Your task to perform on an android device: Open the stopwatch Image 0: 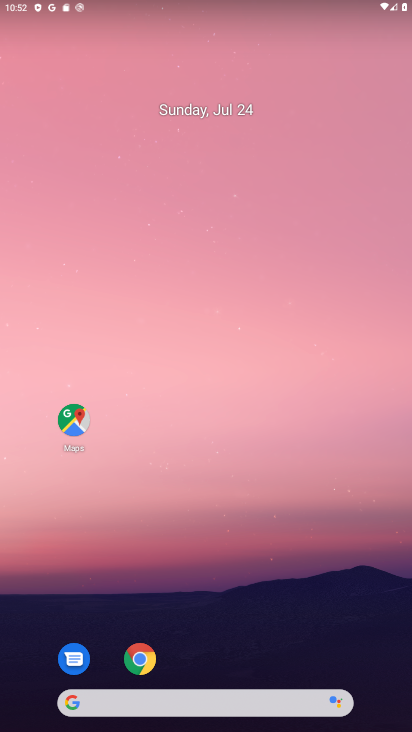
Step 0: drag from (236, 686) to (350, 51)
Your task to perform on an android device: Open the stopwatch Image 1: 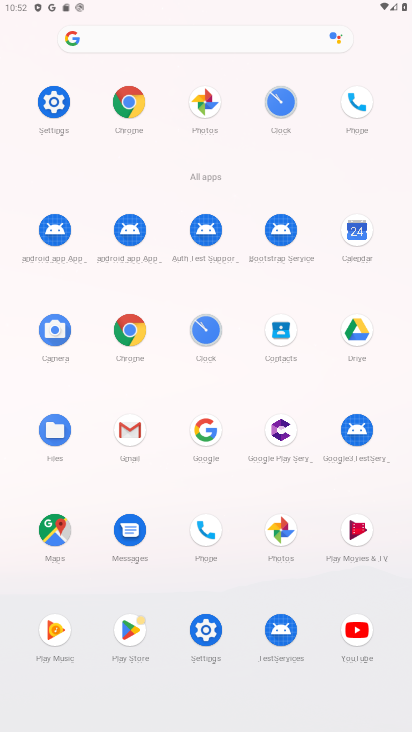
Step 1: click (271, 86)
Your task to perform on an android device: Open the stopwatch Image 2: 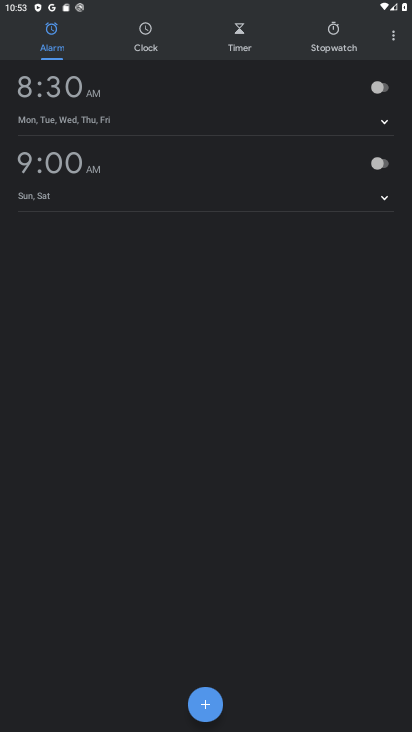
Step 2: click (353, 28)
Your task to perform on an android device: Open the stopwatch Image 3: 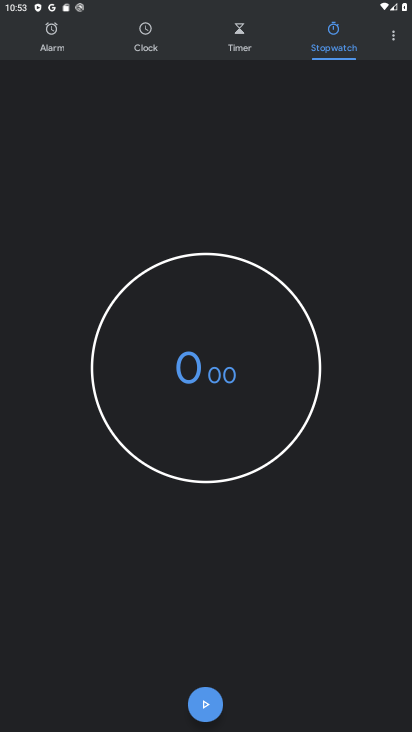
Step 3: task complete